Your task to perform on an android device: open app "Truecaller" (install if not already installed) and enter user name: "coauthor@gmail.com" and password: "quadrangle" Image 0: 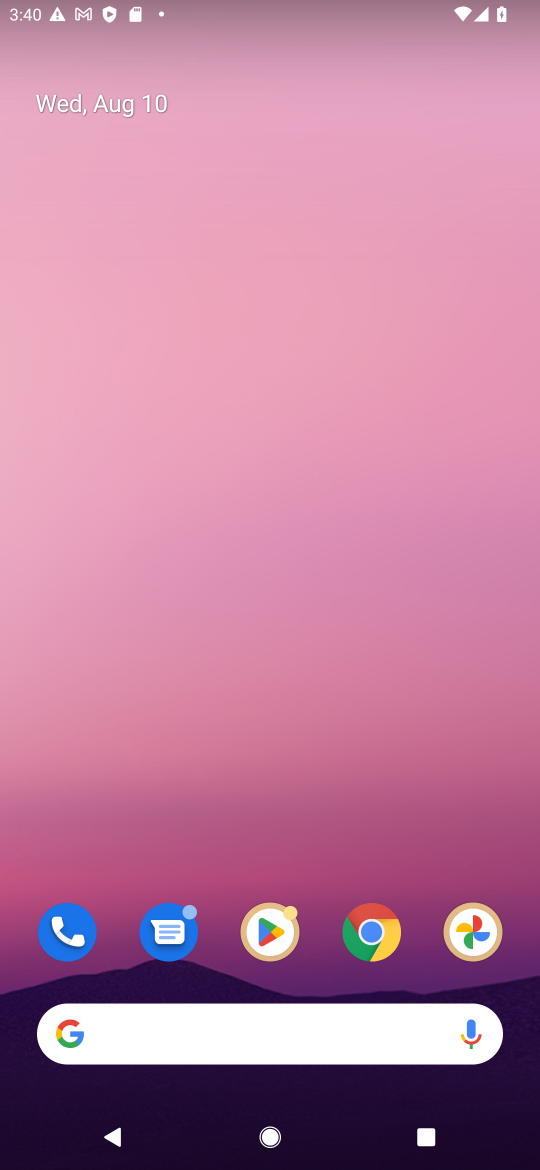
Step 0: drag from (270, 838) to (249, 111)
Your task to perform on an android device: open app "Truecaller" (install if not already installed) and enter user name: "coauthor@gmail.com" and password: "quadrangle" Image 1: 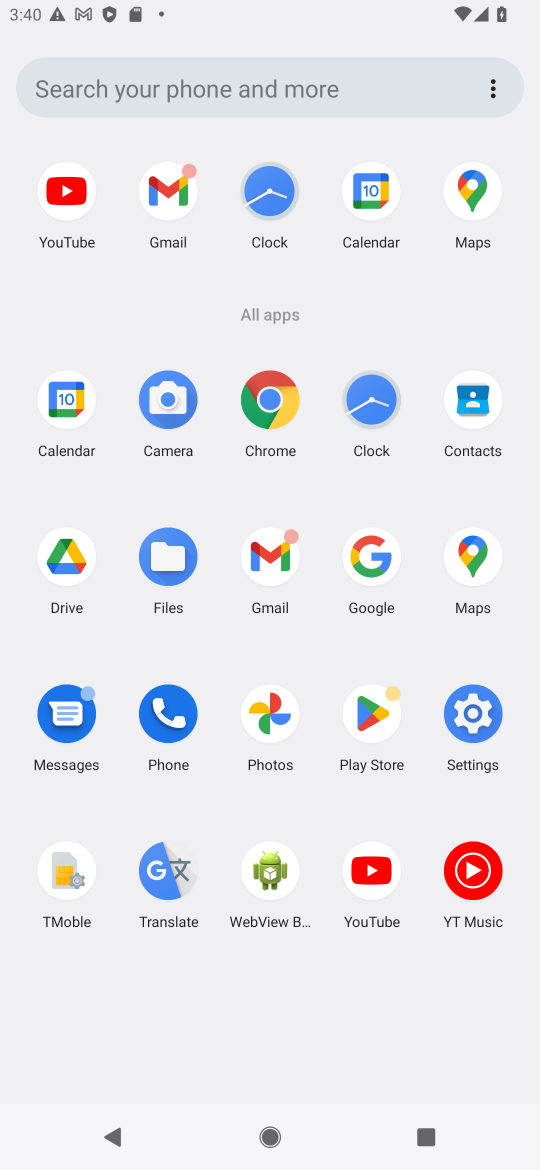
Step 1: click (371, 739)
Your task to perform on an android device: open app "Truecaller" (install if not already installed) and enter user name: "coauthor@gmail.com" and password: "quadrangle" Image 2: 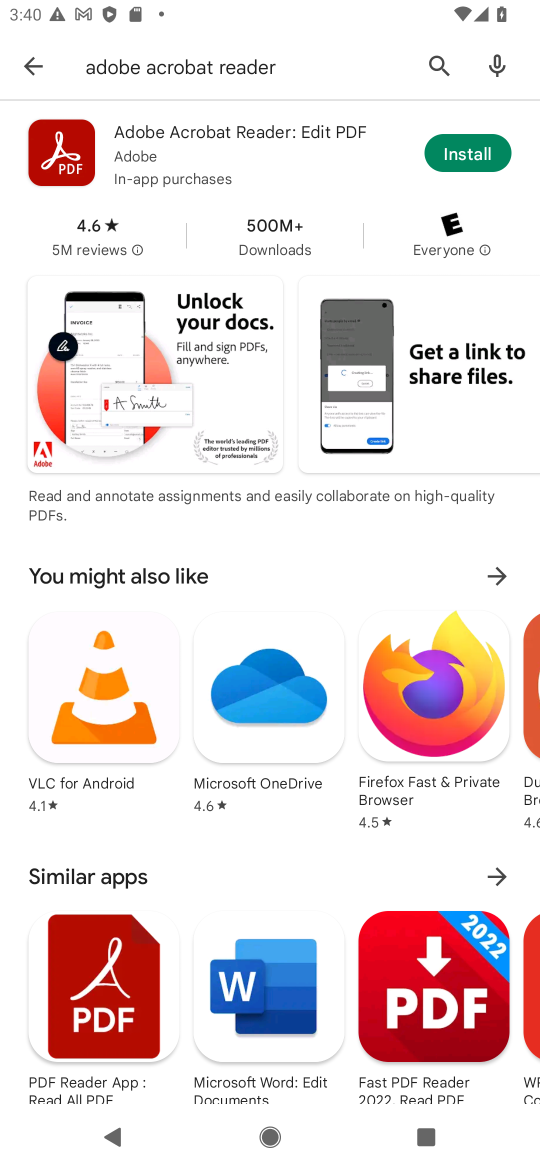
Step 2: click (6, 88)
Your task to perform on an android device: open app "Truecaller" (install if not already installed) and enter user name: "coauthor@gmail.com" and password: "quadrangle" Image 3: 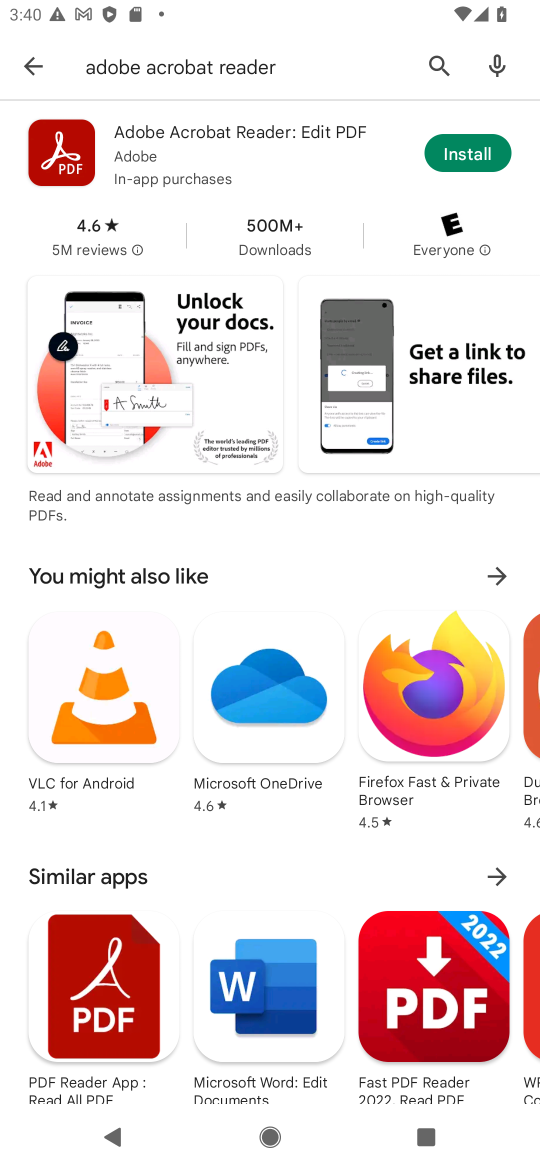
Step 3: click (29, 62)
Your task to perform on an android device: open app "Truecaller" (install if not already installed) and enter user name: "coauthor@gmail.com" and password: "quadrangle" Image 4: 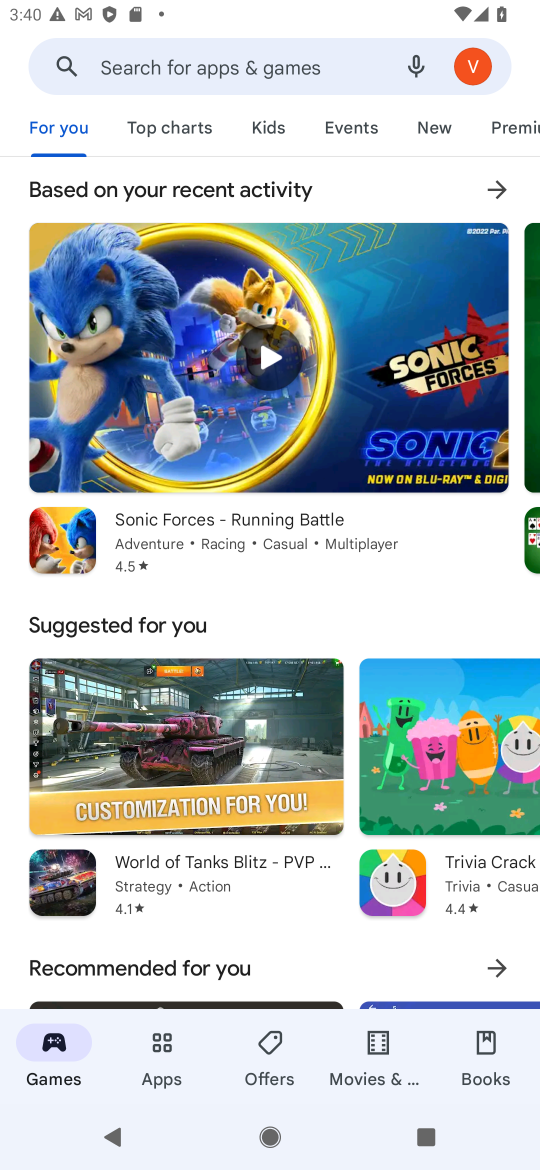
Step 4: click (301, 88)
Your task to perform on an android device: open app "Truecaller" (install if not already installed) and enter user name: "coauthor@gmail.com" and password: "quadrangle" Image 5: 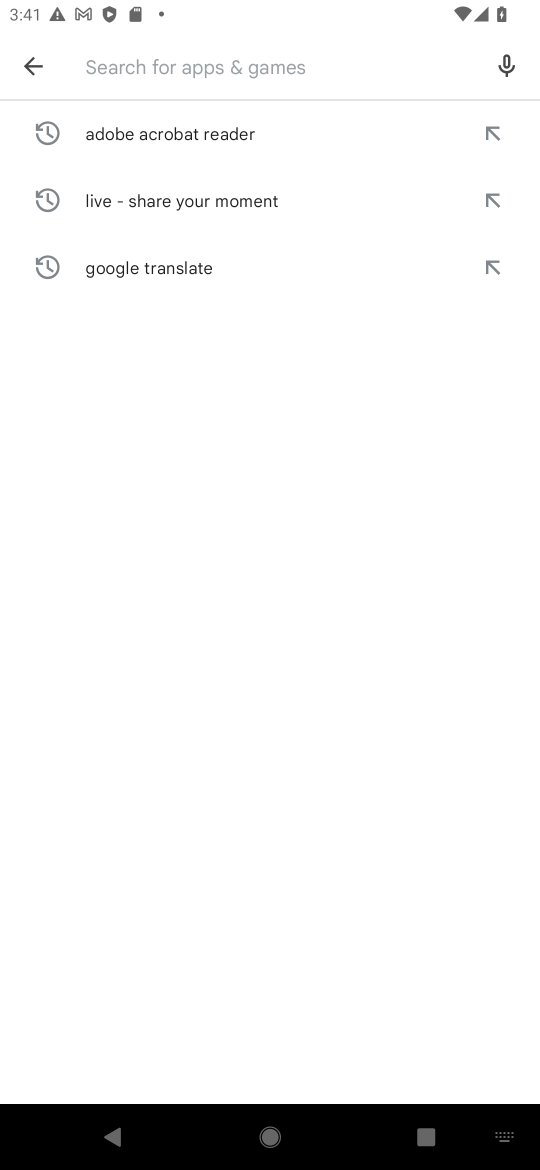
Step 5: type "Truecaller"
Your task to perform on an android device: open app "Truecaller" (install if not already installed) and enter user name: "coauthor@gmail.com" and password: "quadrangle" Image 6: 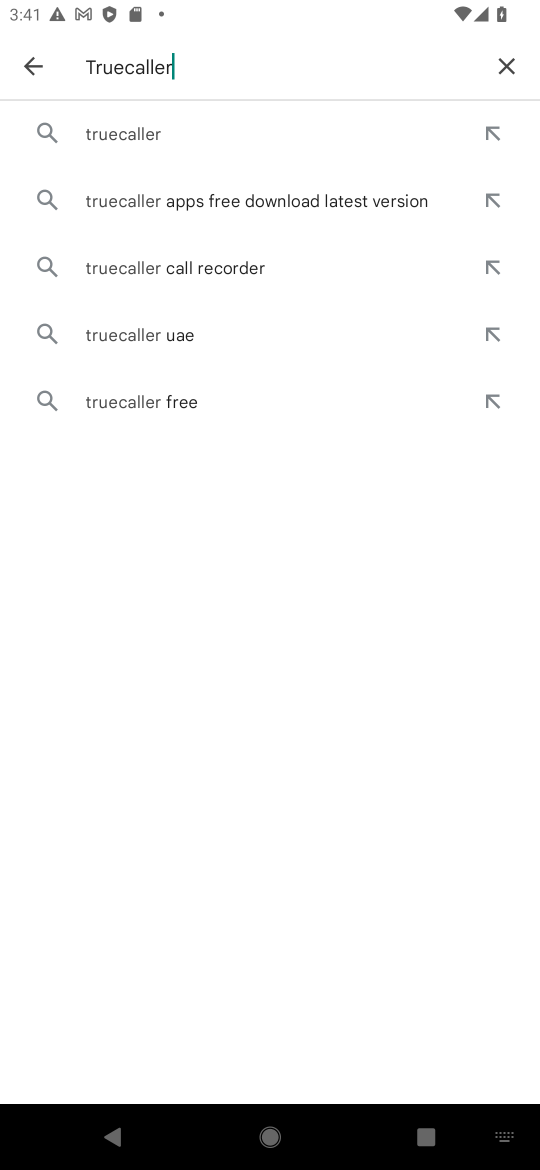
Step 6: click (104, 139)
Your task to perform on an android device: open app "Truecaller" (install if not already installed) and enter user name: "coauthor@gmail.com" and password: "quadrangle" Image 7: 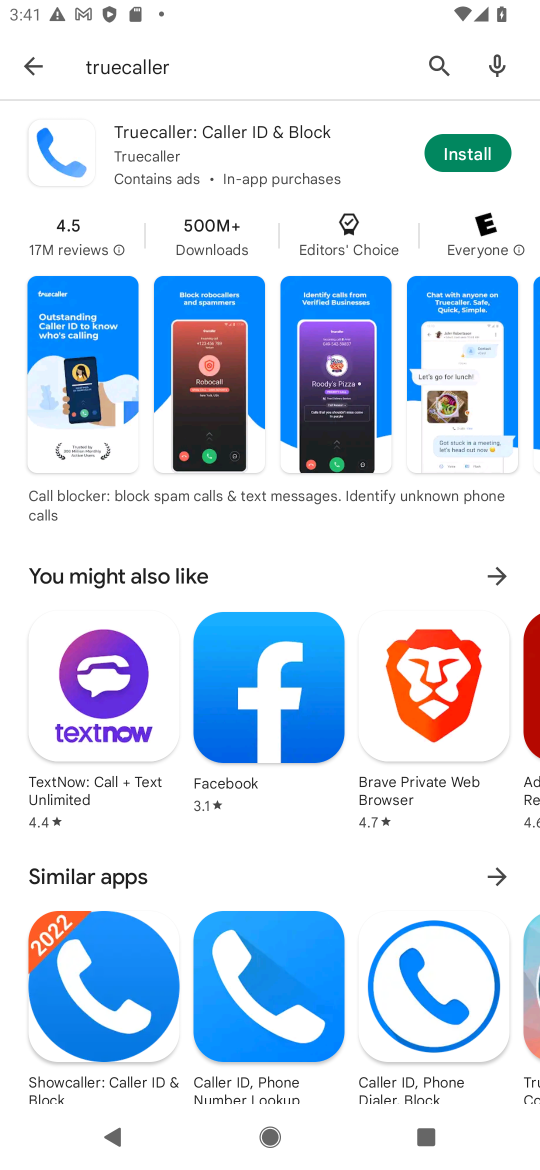
Step 7: task complete